Your task to perform on an android device: delete the emails in spam in the gmail app Image 0: 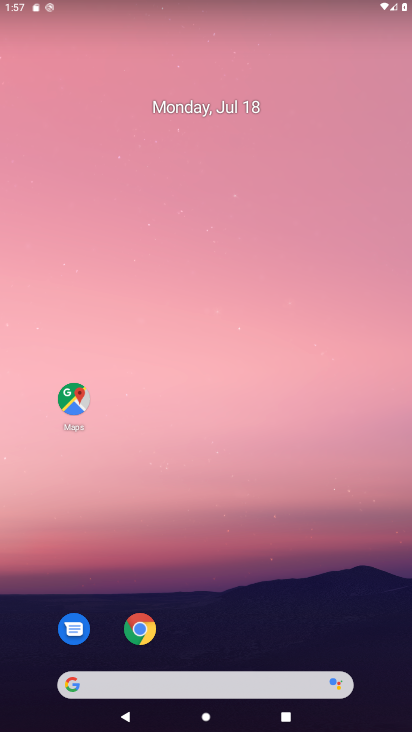
Step 0: drag from (225, 470) to (213, 29)
Your task to perform on an android device: delete the emails in spam in the gmail app Image 1: 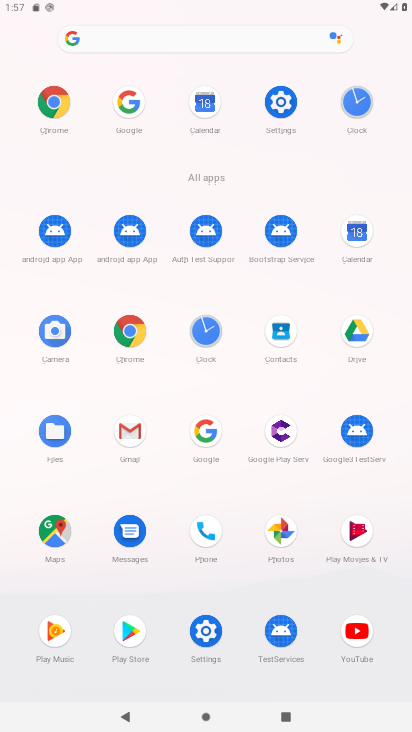
Step 1: click (134, 435)
Your task to perform on an android device: delete the emails in spam in the gmail app Image 2: 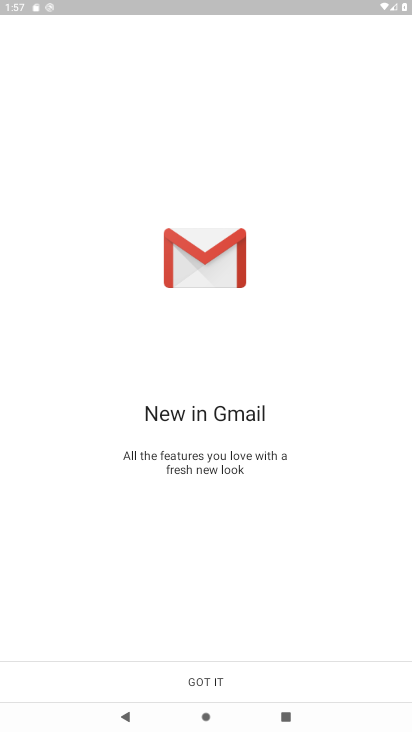
Step 2: click (205, 684)
Your task to perform on an android device: delete the emails in spam in the gmail app Image 3: 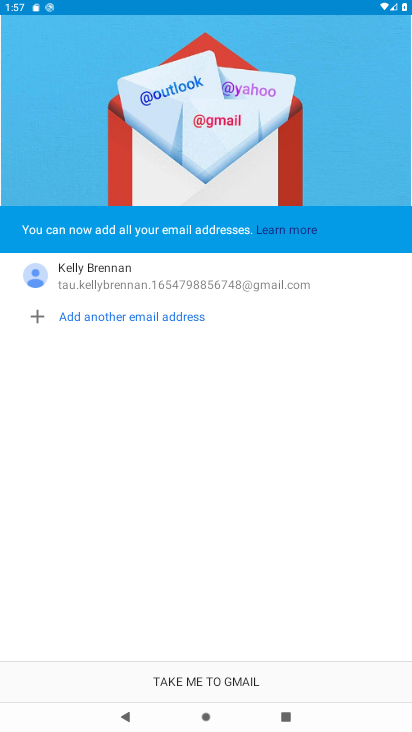
Step 3: click (205, 684)
Your task to perform on an android device: delete the emails in spam in the gmail app Image 4: 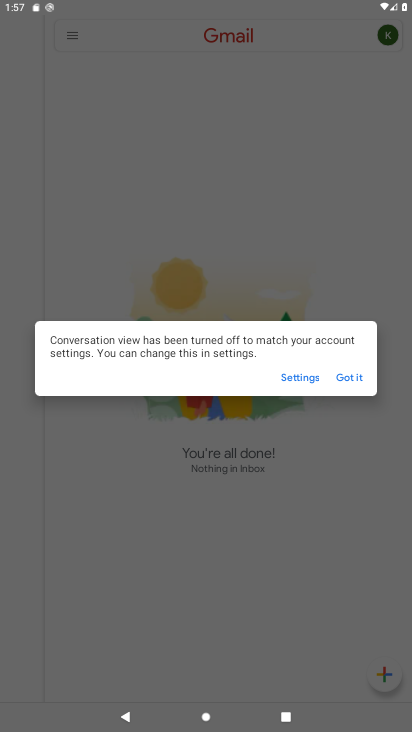
Step 4: click (351, 371)
Your task to perform on an android device: delete the emails in spam in the gmail app Image 5: 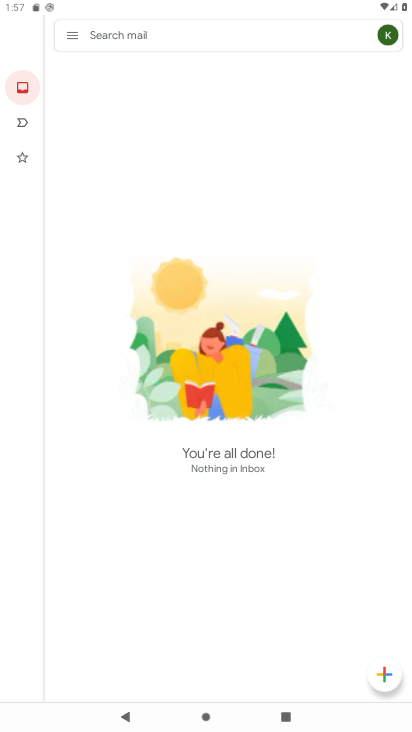
Step 5: click (74, 34)
Your task to perform on an android device: delete the emails in spam in the gmail app Image 6: 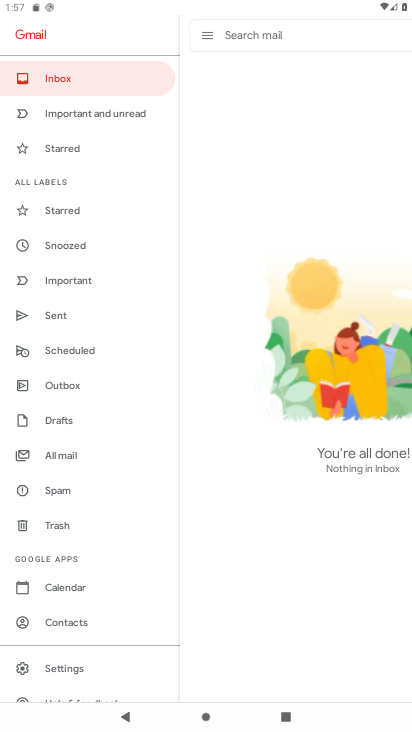
Step 6: click (45, 489)
Your task to perform on an android device: delete the emails in spam in the gmail app Image 7: 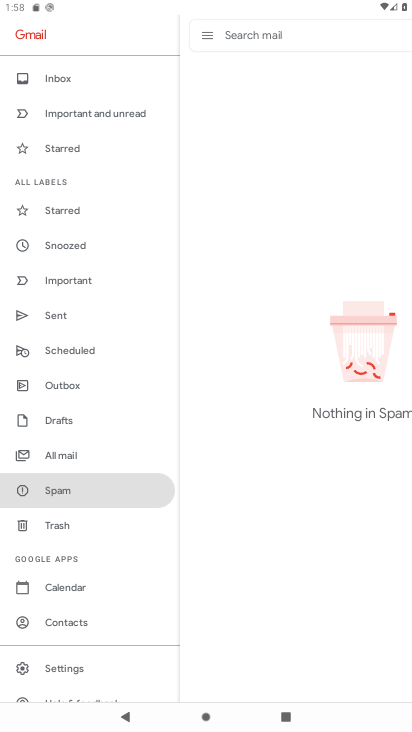
Step 7: task complete